Your task to perform on an android device: Go to CNN.com Image 0: 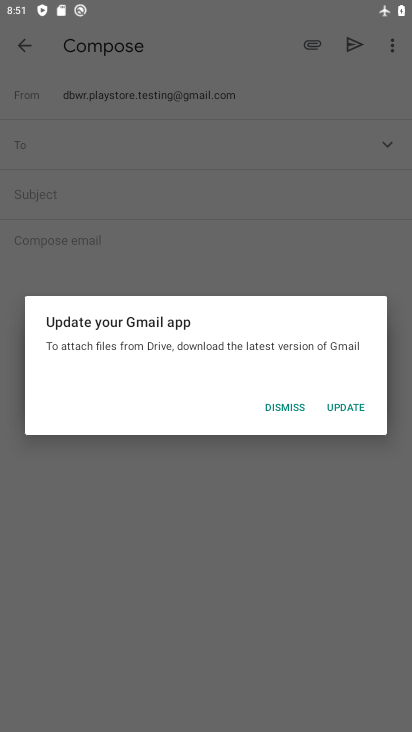
Step 0: press home button
Your task to perform on an android device: Go to CNN.com Image 1: 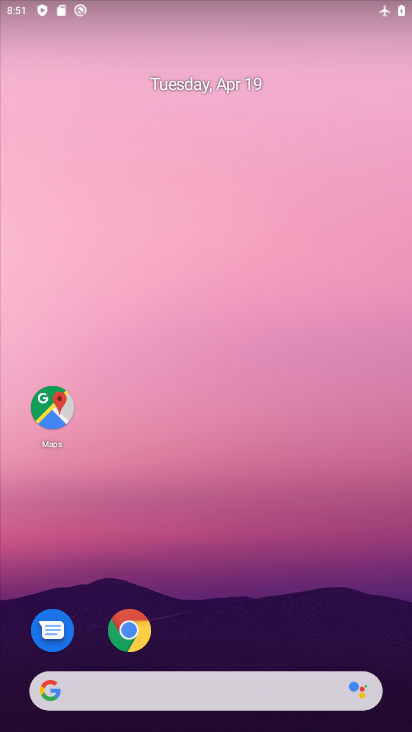
Step 1: click (138, 639)
Your task to perform on an android device: Go to CNN.com Image 2: 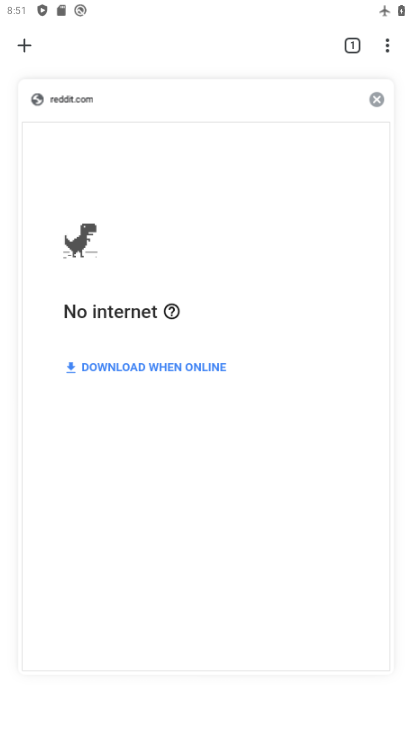
Step 2: click (26, 48)
Your task to perform on an android device: Go to CNN.com Image 3: 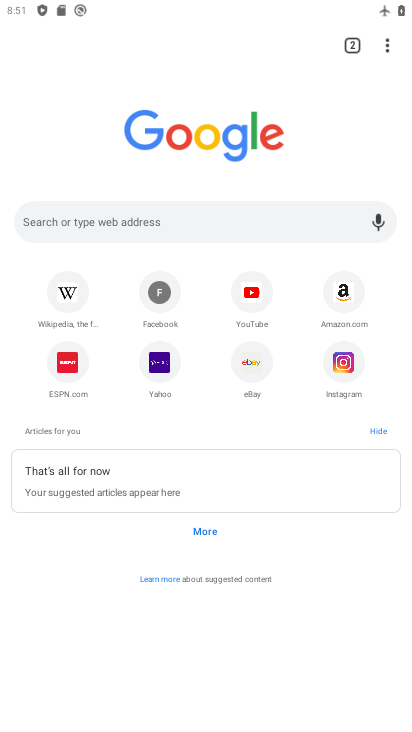
Step 3: click (206, 221)
Your task to perform on an android device: Go to CNN.com Image 4: 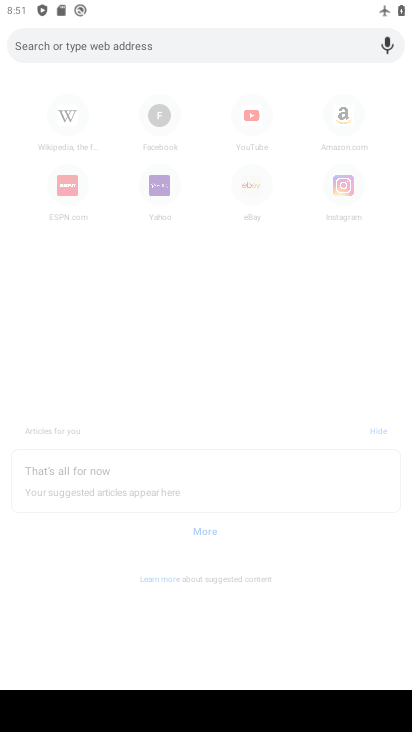
Step 4: type "cnn.com"
Your task to perform on an android device: Go to CNN.com Image 5: 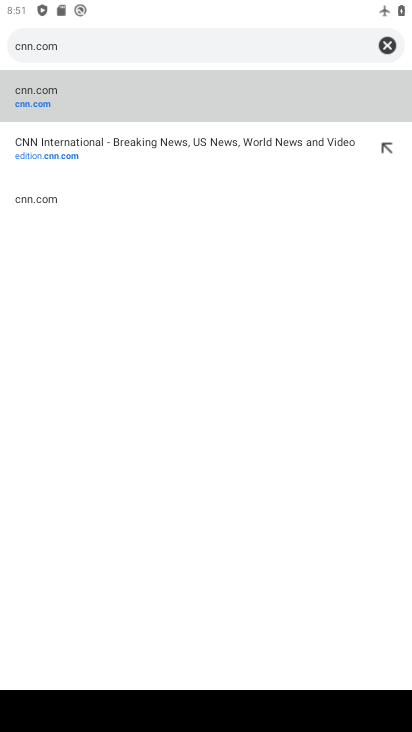
Step 5: click (212, 115)
Your task to perform on an android device: Go to CNN.com Image 6: 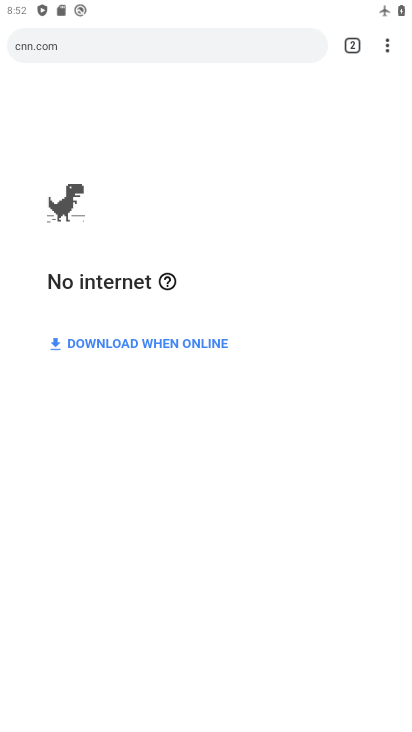
Step 6: task complete